Your task to perform on an android device: turn on airplane mode Image 0: 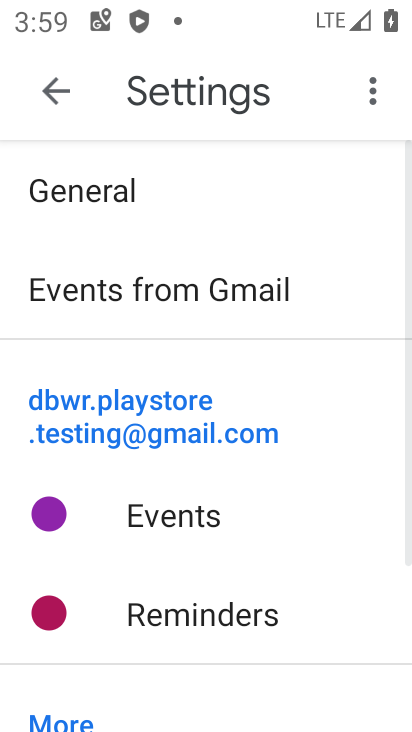
Step 0: press back button
Your task to perform on an android device: turn on airplane mode Image 1: 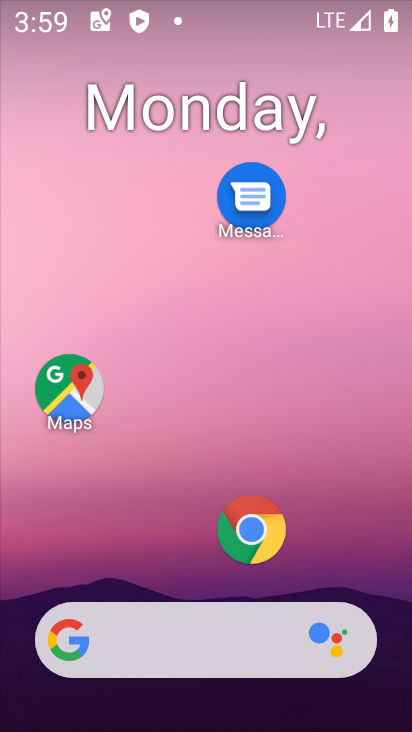
Step 1: drag from (360, 13) to (156, 580)
Your task to perform on an android device: turn on airplane mode Image 2: 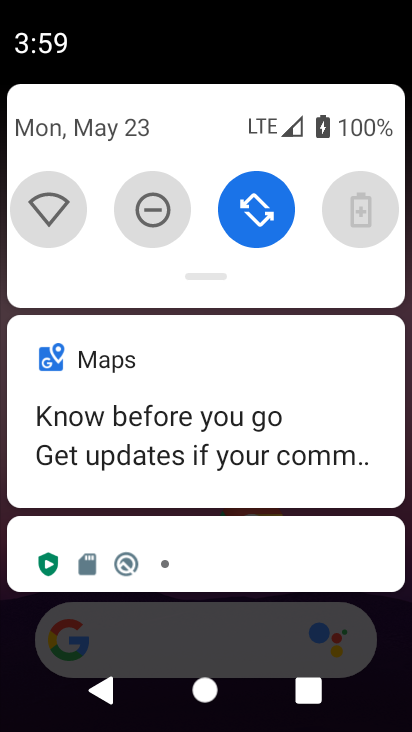
Step 2: drag from (381, 211) to (47, 213)
Your task to perform on an android device: turn on airplane mode Image 3: 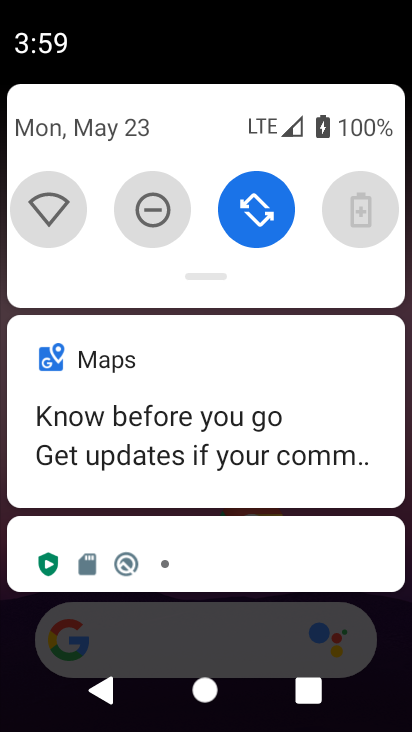
Step 3: drag from (342, 216) to (0, 206)
Your task to perform on an android device: turn on airplane mode Image 4: 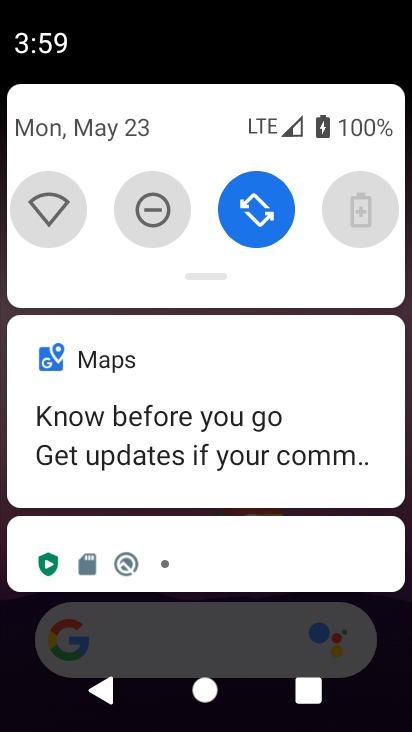
Step 4: drag from (220, 267) to (234, 704)
Your task to perform on an android device: turn on airplane mode Image 5: 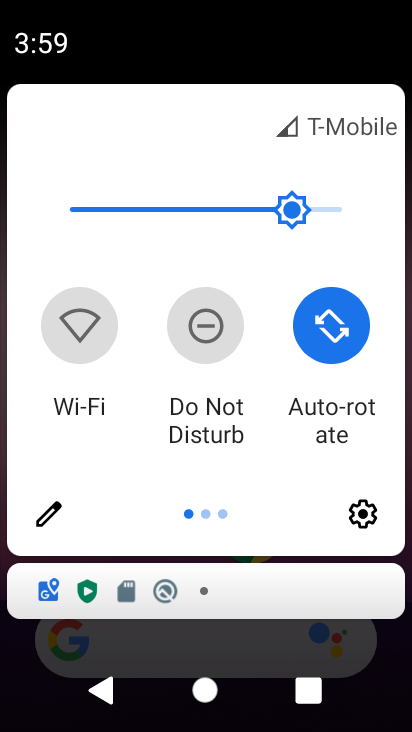
Step 5: drag from (364, 344) to (92, 332)
Your task to perform on an android device: turn on airplane mode Image 6: 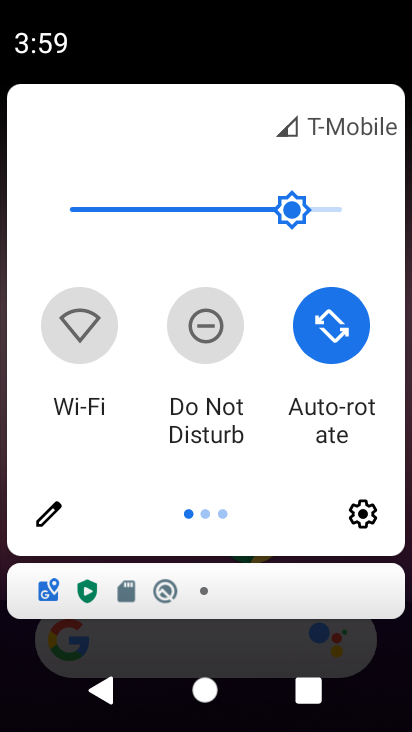
Step 6: drag from (349, 344) to (36, 330)
Your task to perform on an android device: turn on airplane mode Image 7: 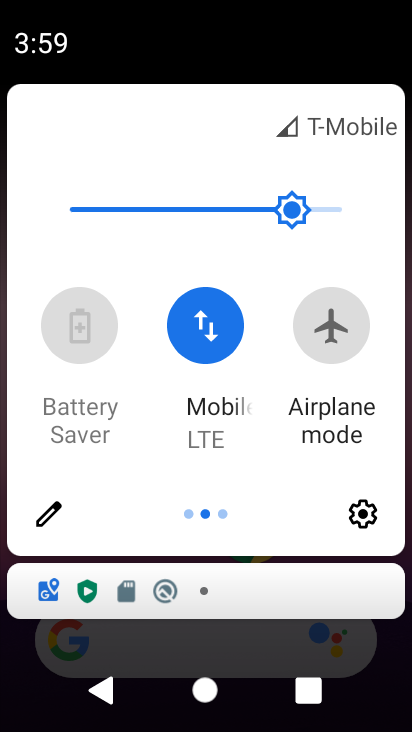
Step 7: click (315, 307)
Your task to perform on an android device: turn on airplane mode Image 8: 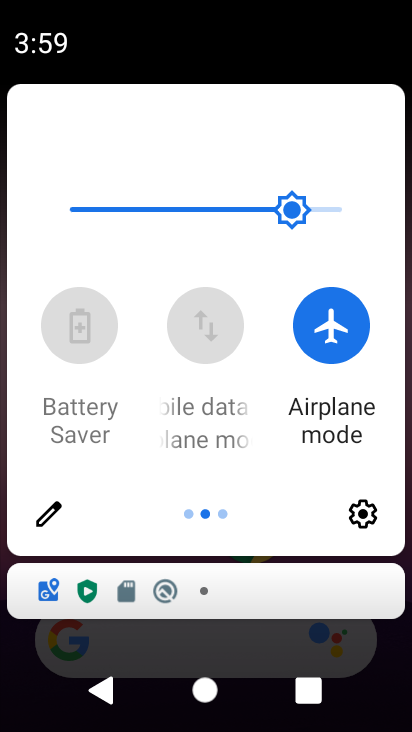
Step 8: task complete